Your task to perform on an android device: Open Maps and search for coffee Image 0: 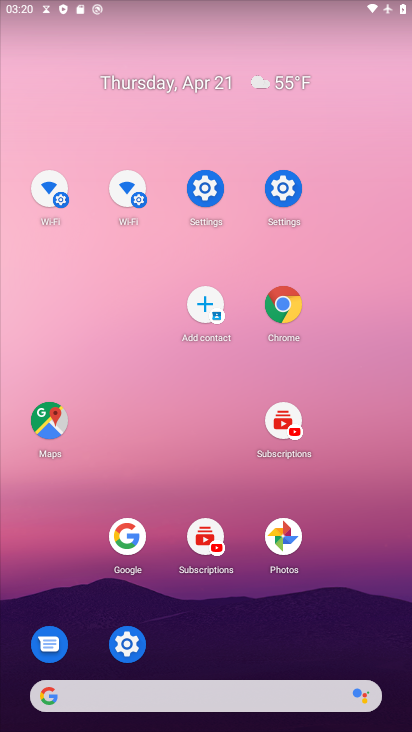
Step 0: drag from (180, 340) to (75, 7)
Your task to perform on an android device: Open Maps and search for coffee Image 1: 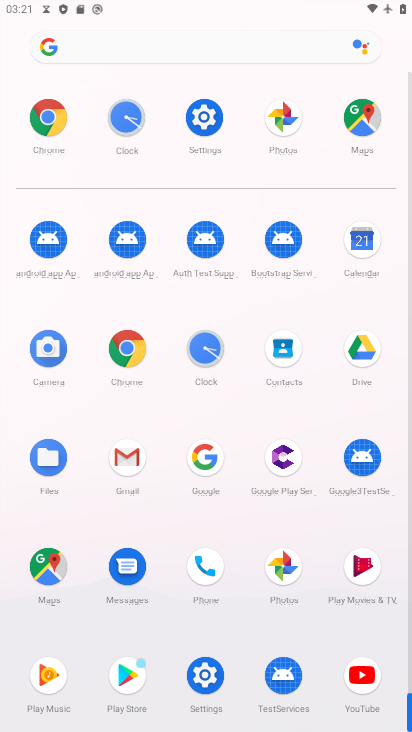
Step 1: click (355, 118)
Your task to perform on an android device: Open Maps and search for coffee Image 2: 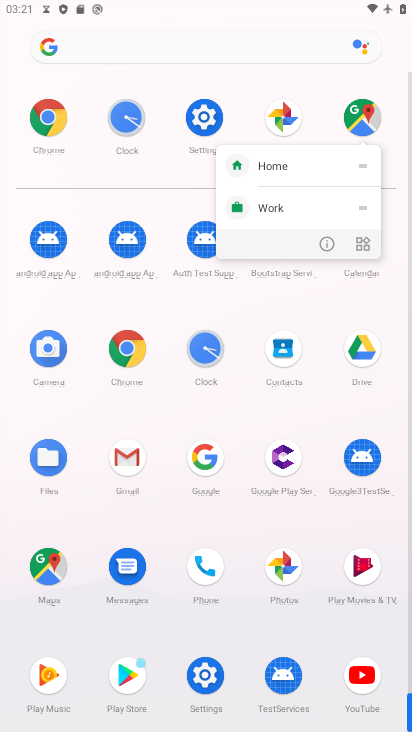
Step 2: drag from (367, 107) to (361, 148)
Your task to perform on an android device: Open Maps and search for coffee Image 3: 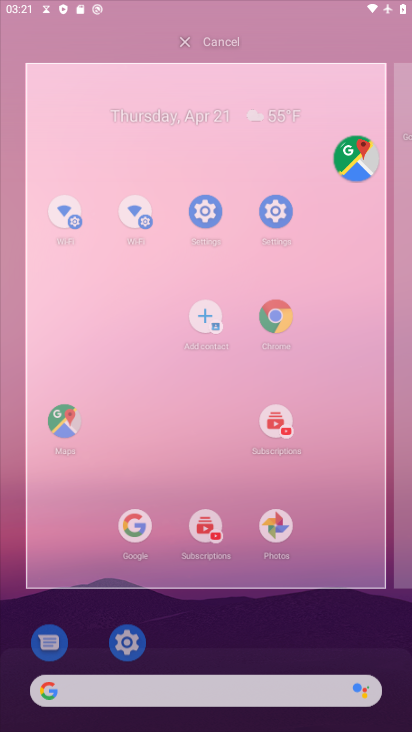
Step 3: click (343, 112)
Your task to perform on an android device: Open Maps and search for coffee Image 4: 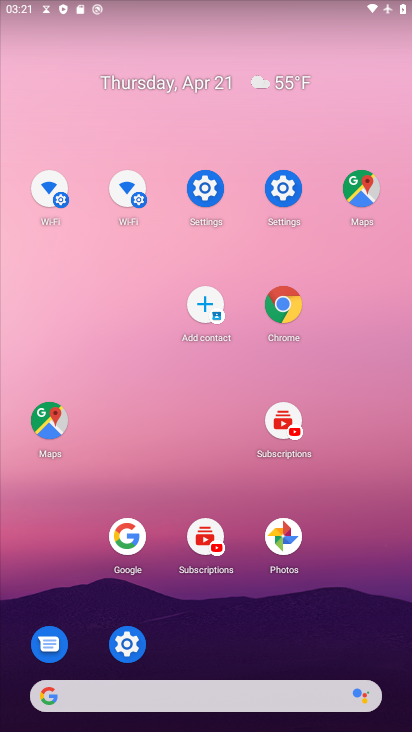
Step 4: click (348, 188)
Your task to perform on an android device: Open Maps and search for coffee Image 5: 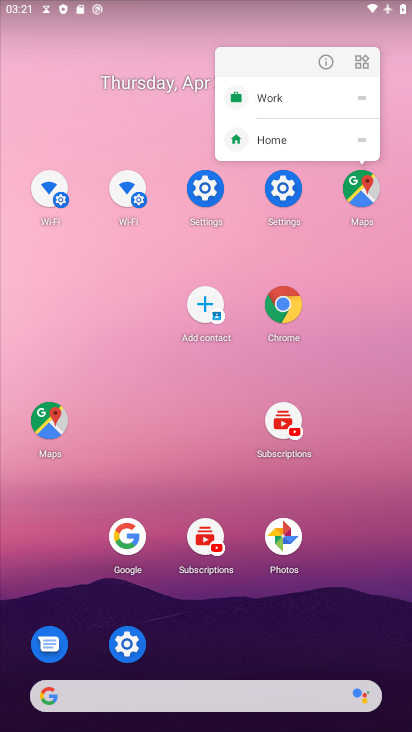
Step 5: click (358, 183)
Your task to perform on an android device: Open Maps and search for coffee Image 6: 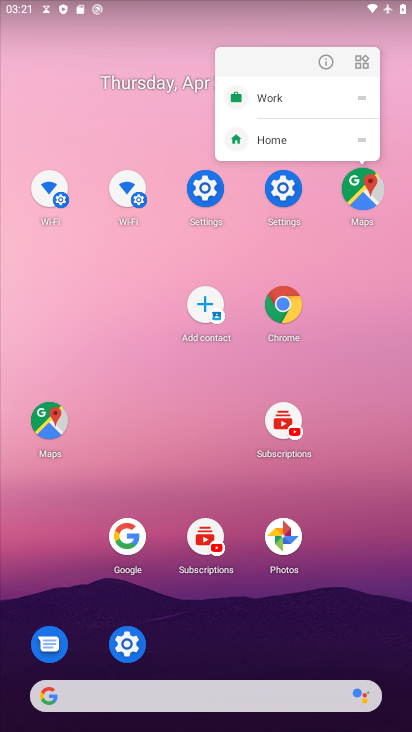
Step 6: click (359, 181)
Your task to perform on an android device: Open Maps and search for coffee Image 7: 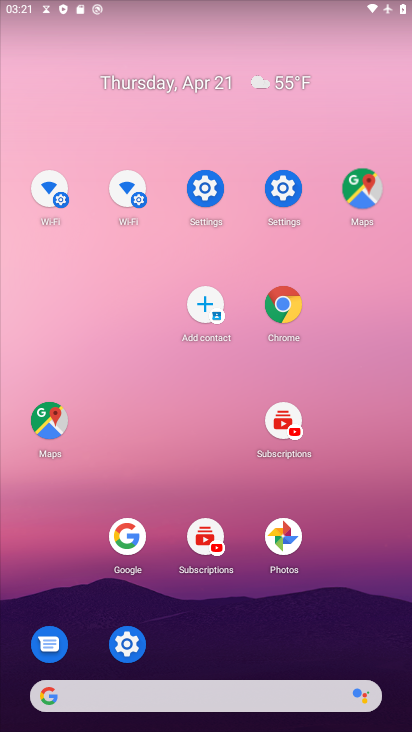
Step 7: click (359, 181)
Your task to perform on an android device: Open Maps and search for coffee Image 8: 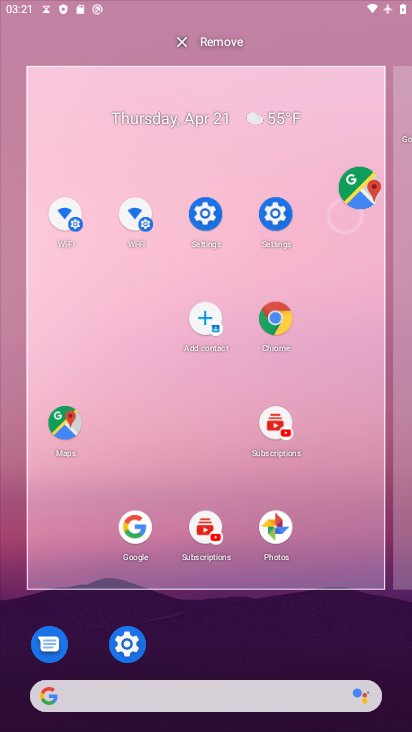
Step 8: click (369, 192)
Your task to perform on an android device: Open Maps and search for coffee Image 9: 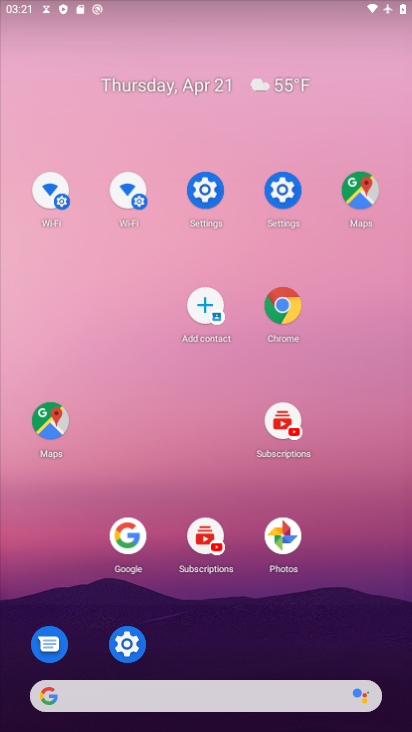
Step 9: click (369, 192)
Your task to perform on an android device: Open Maps and search for coffee Image 10: 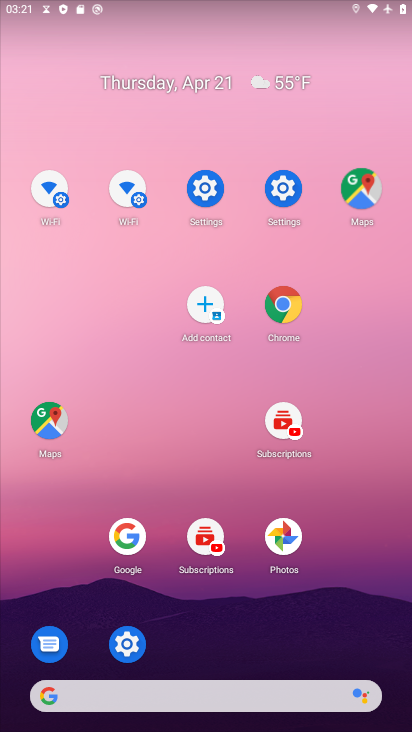
Step 10: click (348, 184)
Your task to perform on an android device: Open Maps and search for coffee Image 11: 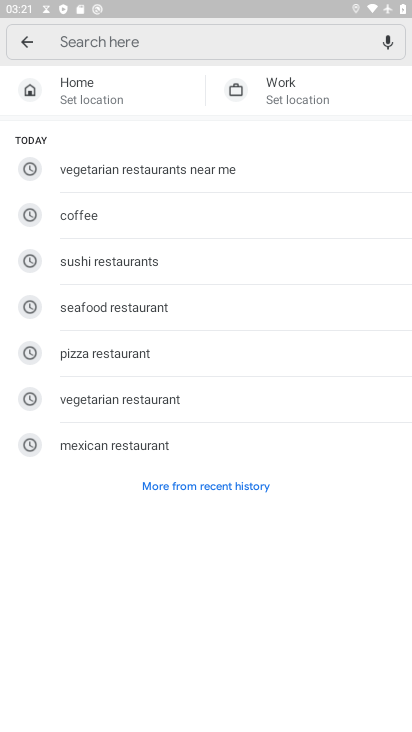
Step 11: click (84, 220)
Your task to perform on an android device: Open Maps and search for coffee Image 12: 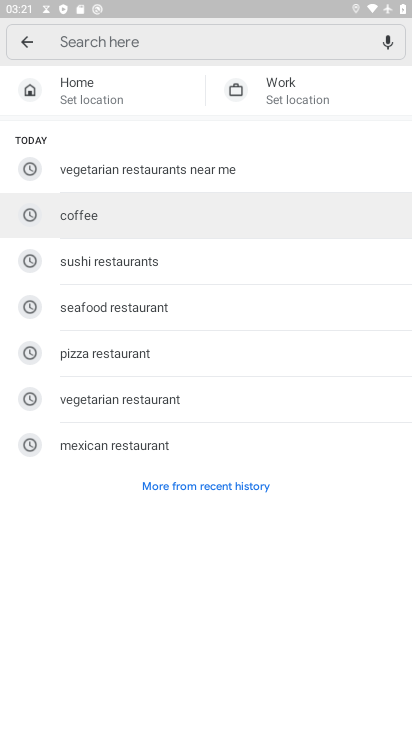
Step 12: click (83, 209)
Your task to perform on an android device: Open Maps and search for coffee Image 13: 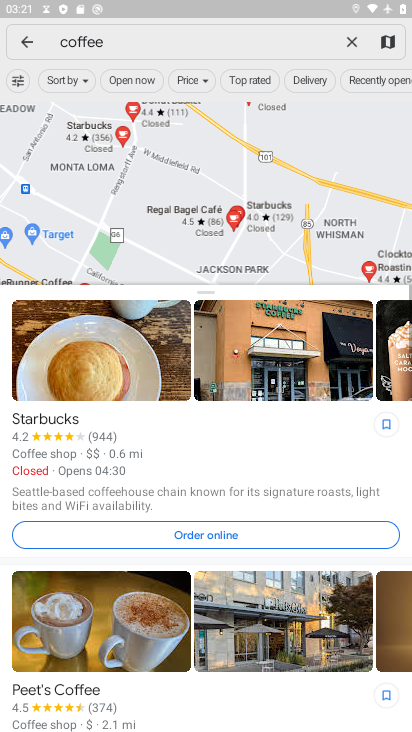
Step 13: task complete